Your task to perform on an android device: choose inbox layout in the gmail app Image 0: 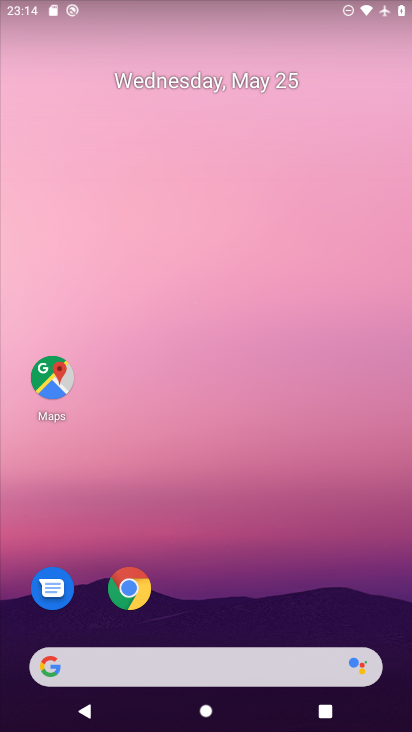
Step 0: drag from (262, 548) to (222, 79)
Your task to perform on an android device: choose inbox layout in the gmail app Image 1: 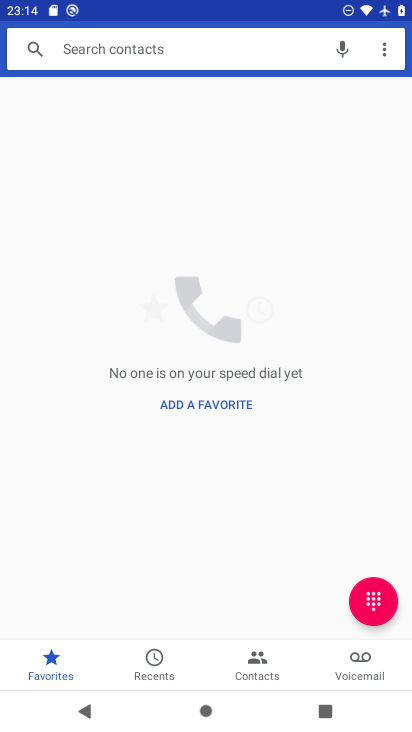
Step 1: press home button
Your task to perform on an android device: choose inbox layout in the gmail app Image 2: 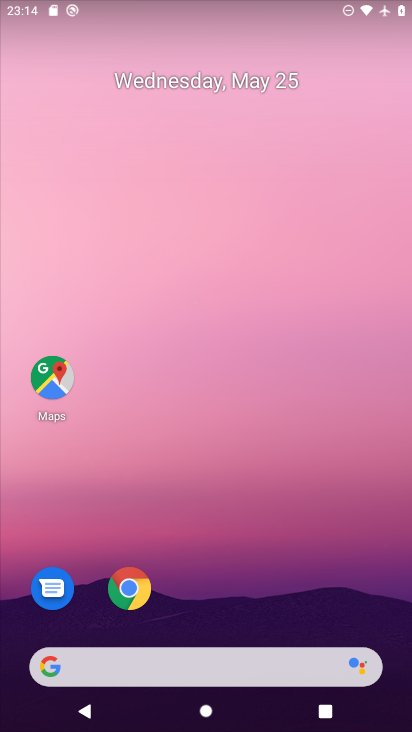
Step 2: drag from (256, 607) to (185, 163)
Your task to perform on an android device: choose inbox layout in the gmail app Image 3: 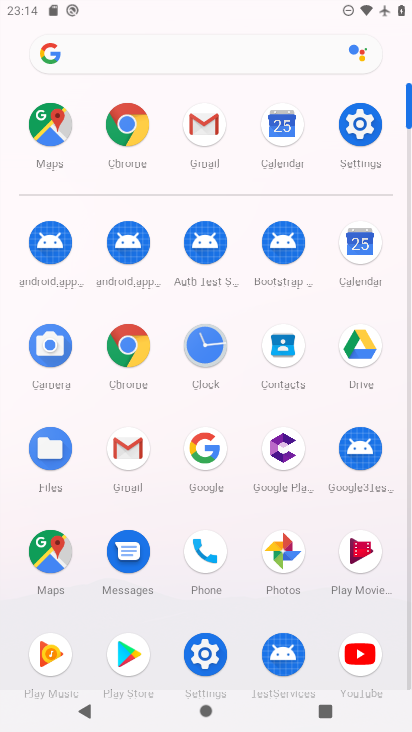
Step 3: click (194, 136)
Your task to perform on an android device: choose inbox layout in the gmail app Image 4: 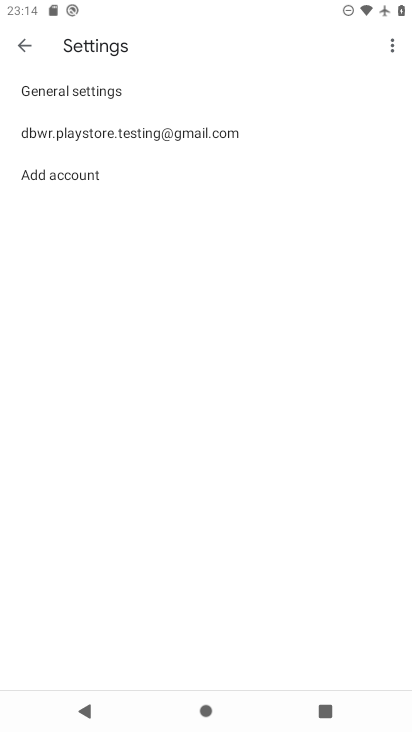
Step 4: click (36, 132)
Your task to perform on an android device: choose inbox layout in the gmail app Image 5: 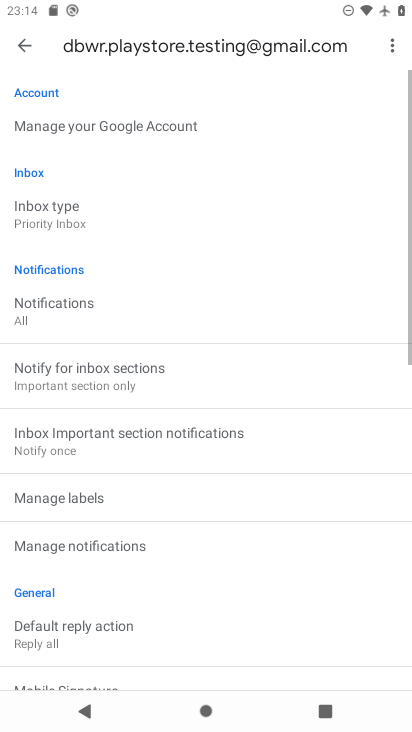
Step 5: click (40, 197)
Your task to perform on an android device: choose inbox layout in the gmail app Image 6: 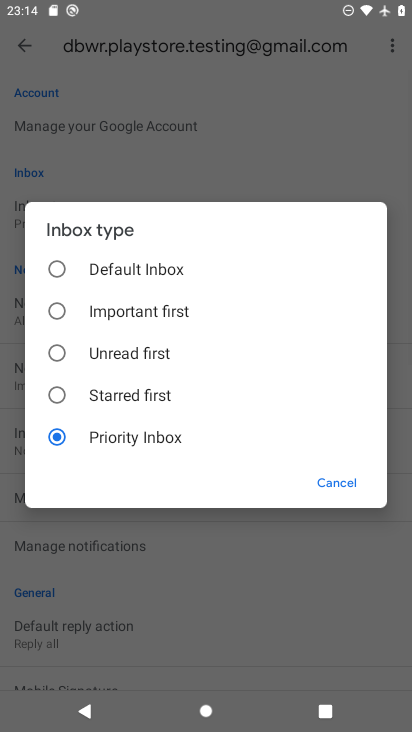
Step 6: task complete